Your task to perform on an android device: turn on sleep mode Image 0: 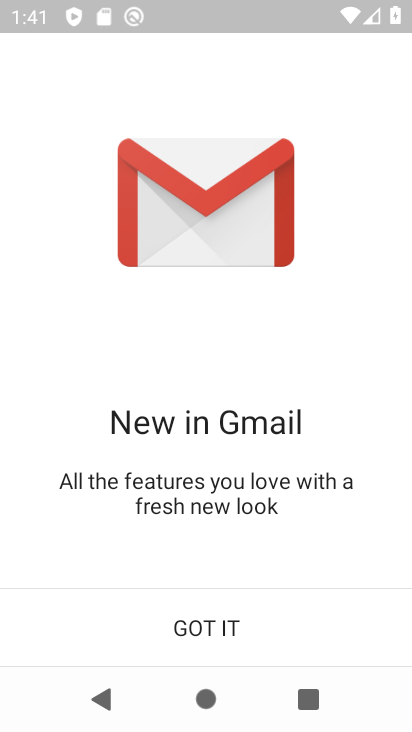
Step 0: press home button
Your task to perform on an android device: turn on sleep mode Image 1: 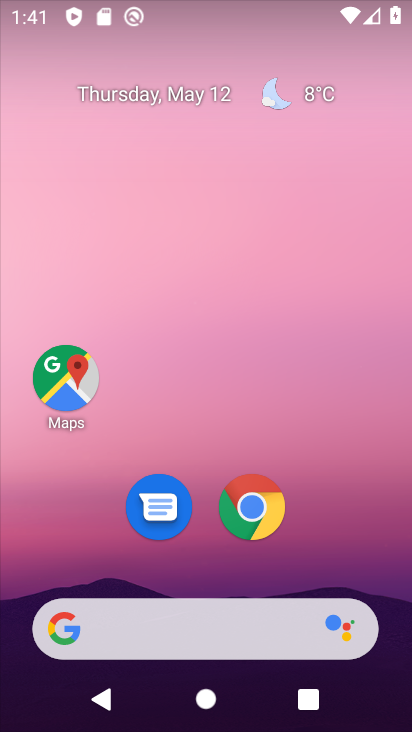
Step 1: drag from (160, 584) to (241, 85)
Your task to perform on an android device: turn on sleep mode Image 2: 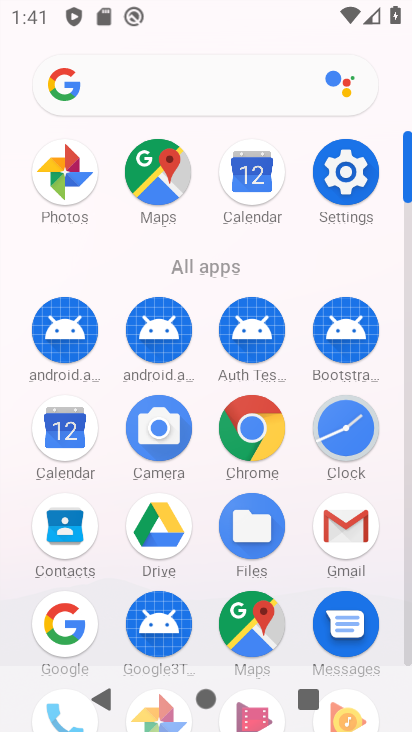
Step 2: drag from (119, 648) to (175, 405)
Your task to perform on an android device: turn on sleep mode Image 3: 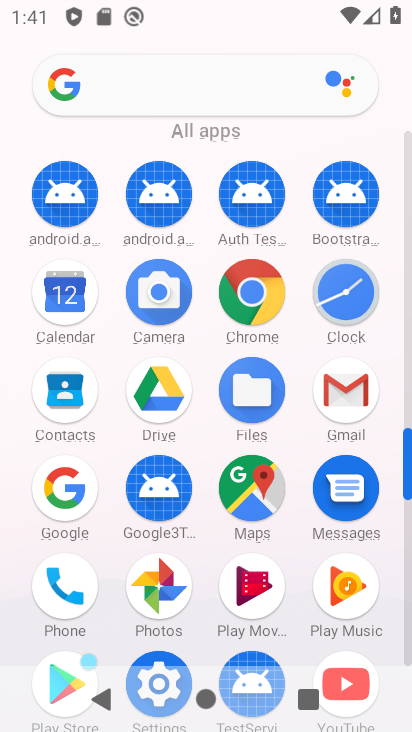
Step 3: click (151, 666)
Your task to perform on an android device: turn on sleep mode Image 4: 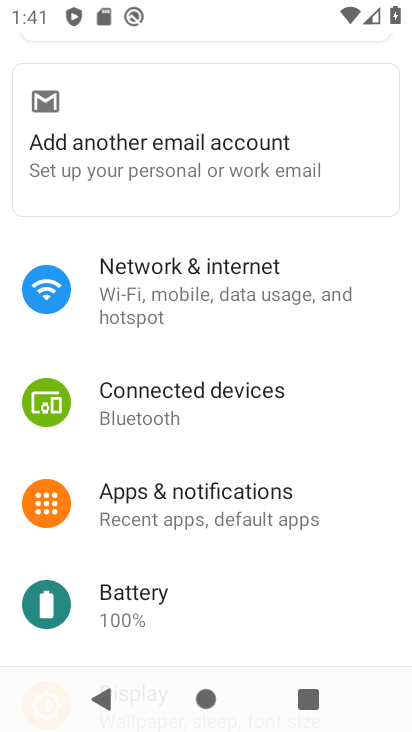
Step 4: drag from (181, 618) to (261, 334)
Your task to perform on an android device: turn on sleep mode Image 5: 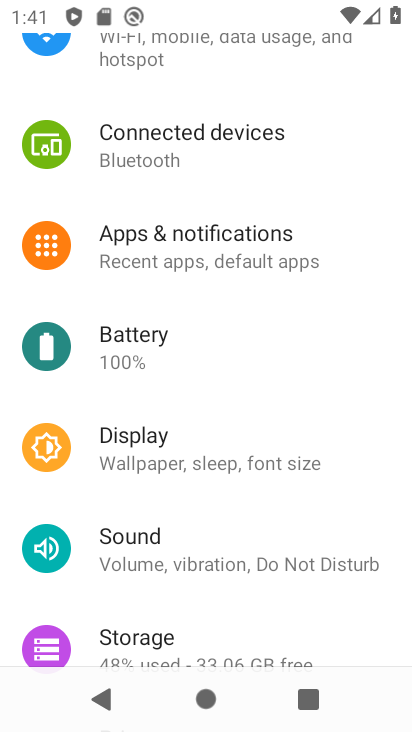
Step 5: click (171, 429)
Your task to perform on an android device: turn on sleep mode Image 6: 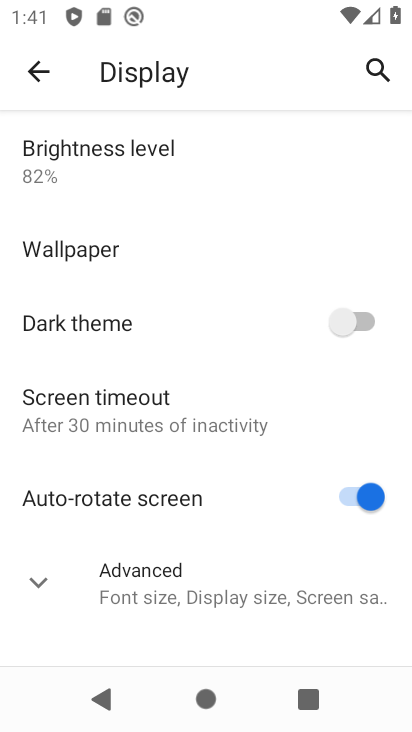
Step 6: click (181, 593)
Your task to perform on an android device: turn on sleep mode Image 7: 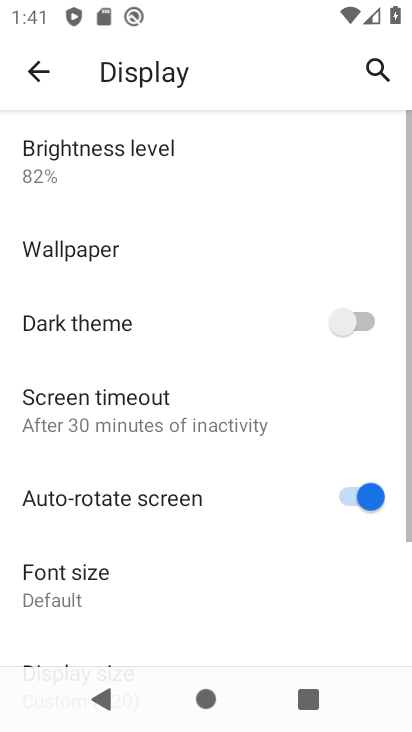
Step 7: task complete